Your task to perform on an android device: turn off airplane mode Image 0: 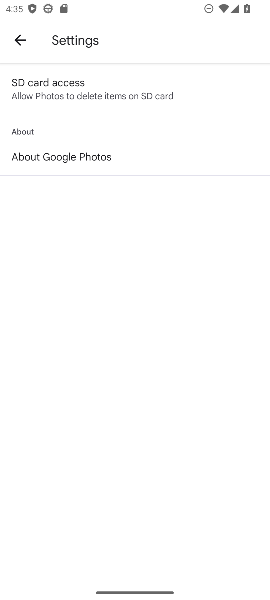
Step 0: press home button
Your task to perform on an android device: turn off airplane mode Image 1: 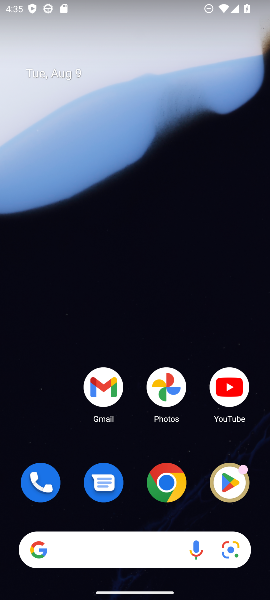
Step 1: drag from (131, 442) to (94, 74)
Your task to perform on an android device: turn off airplane mode Image 2: 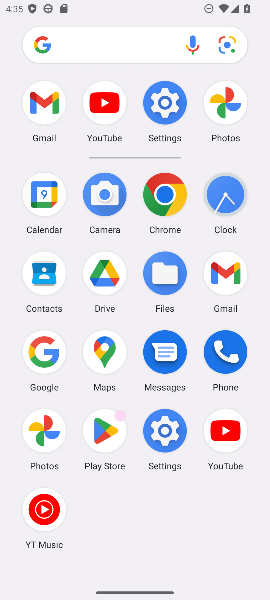
Step 2: click (166, 109)
Your task to perform on an android device: turn off airplane mode Image 3: 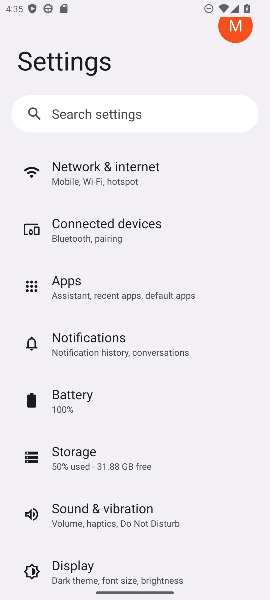
Step 3: click (111, 187)
Your task to perform on an android device: turn off airplane mode Image 4: 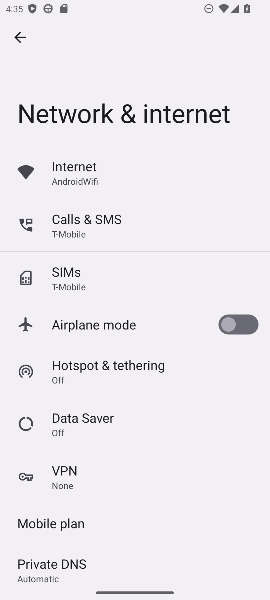
Step 4: click (106, 172)
Your task to perform on an android device: turn off airplane mode Image 5: 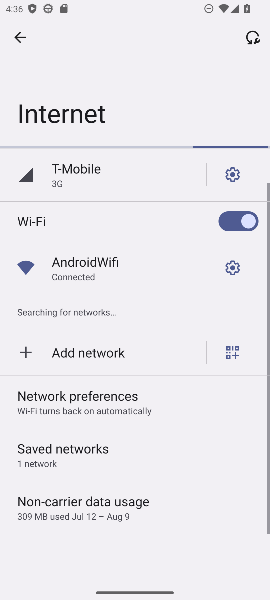
Step 5: click (20, 42)
Your task to perform on an android device: turn off airplane mode Image 6: 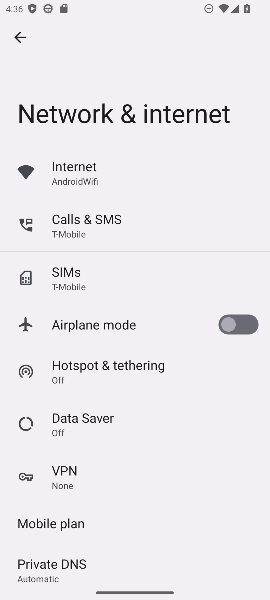
Step 6: task complete